Your task to perform on an android device: search for starred emails in the gmail app Image 0: 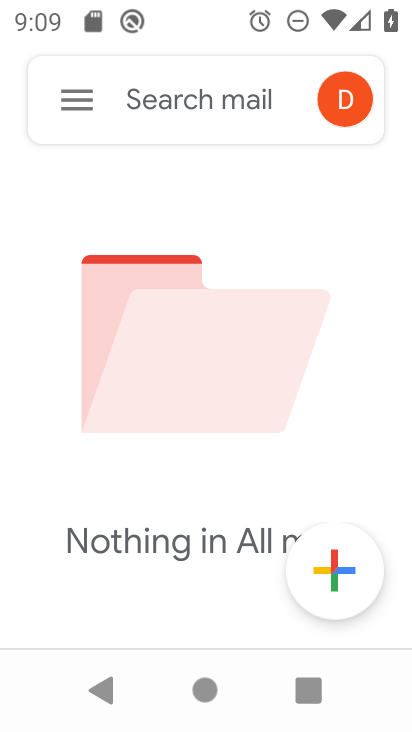
Step 0: press home button
Your task to perform on an android device: search for starred emails in the gmail app Image 1: 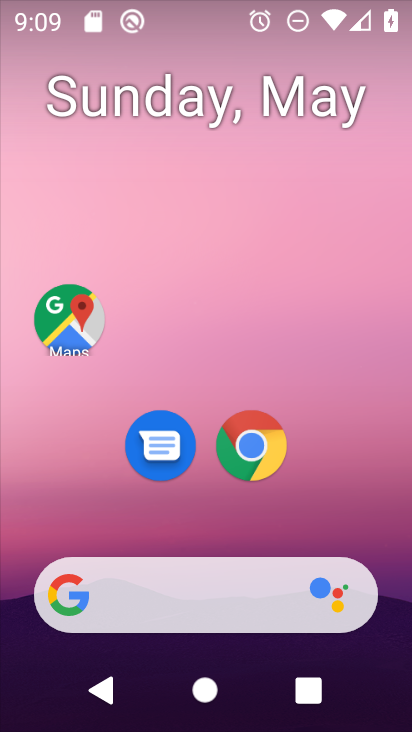
Step 1: drag from (187, 578) to (169, 133)
Your task to perform on an android device: search for starred emails in the gmail app Image 2: 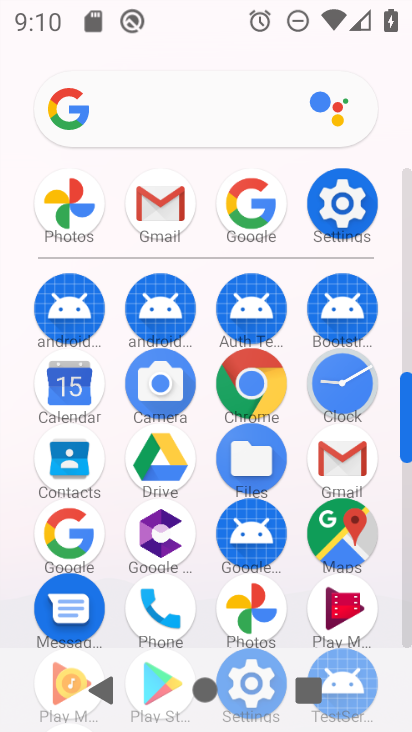
Step 2: click (354, 459)
Your task to perform on an android device: search for starred emails in the gmail app Image 3: 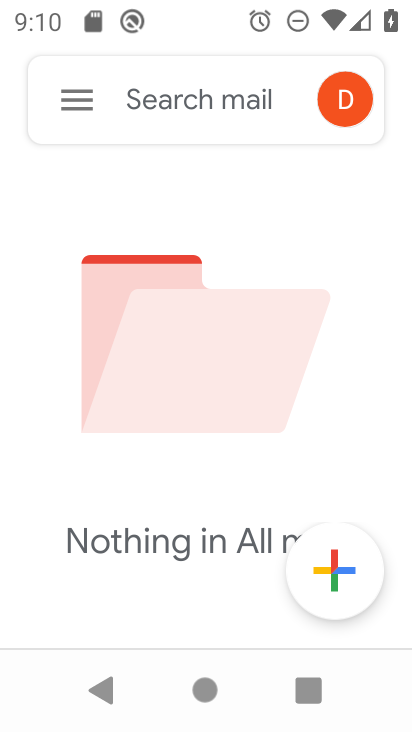
Step 3: click (63, 104)
Your task to perform on an android device: search for starred emails in the gmail app Image 4: 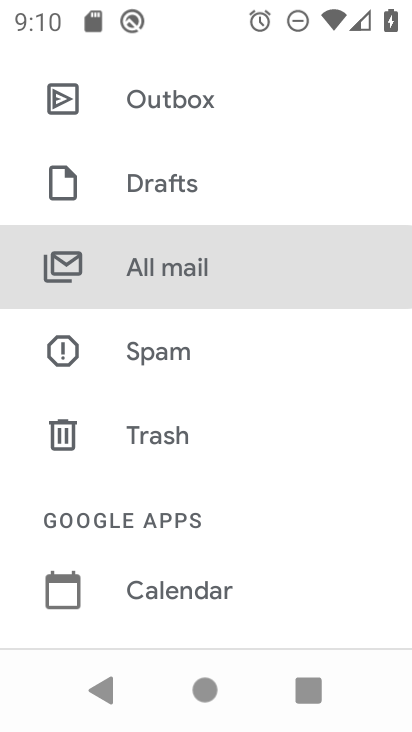
Step 4: drag from (154, 294) to (161, 575)
Your task to perform on an android device: search for starred emails in the gmail app Image 5: 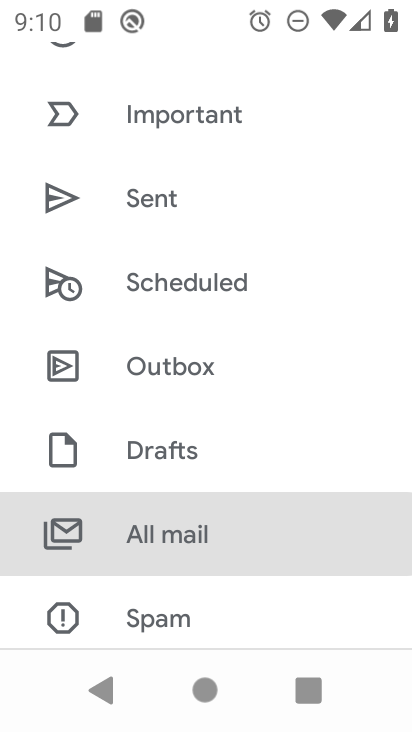
Step 5: drag from (138, 405) to (148, 609)
Your task to perform on an android device: search for starred emails in the gmail app Image 6: 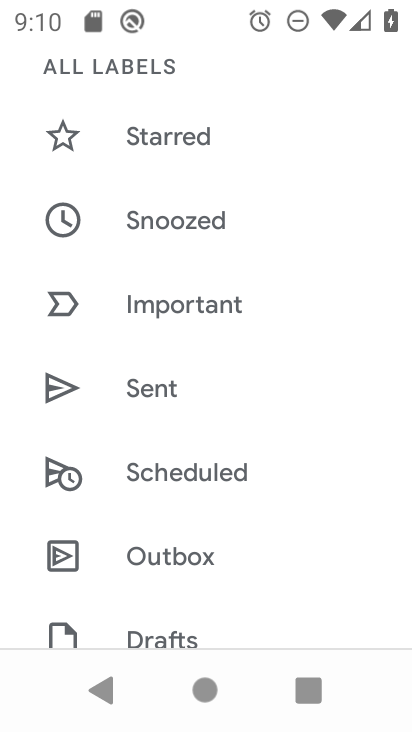
Step 6: drag from (143, 351) to (166, 518)
Your task to perform on an android device: search for starred emails in the gmail app Image 7: 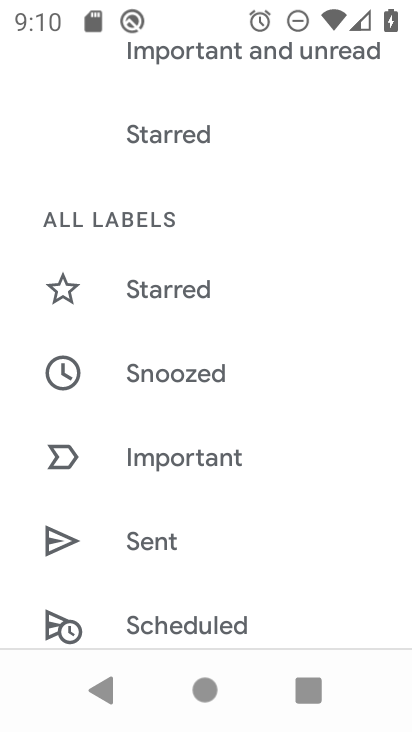
Step 7: click (165, 299)
Your task to perform on an android device: search for starred emails in the gmail app Image 8: 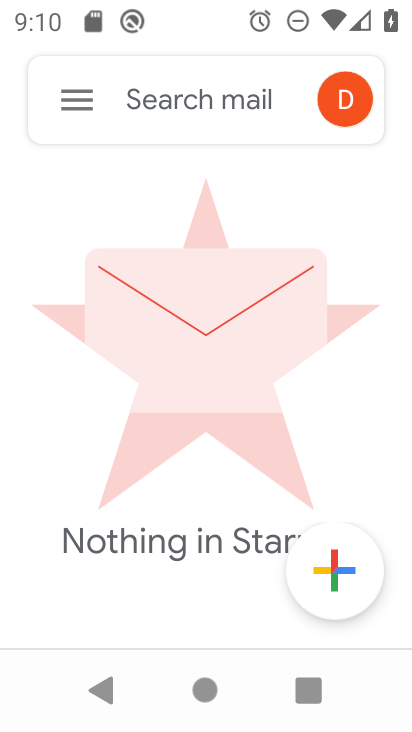
Step 8: task complete